Your task to perform on an android device: Go to network settings Image 0: 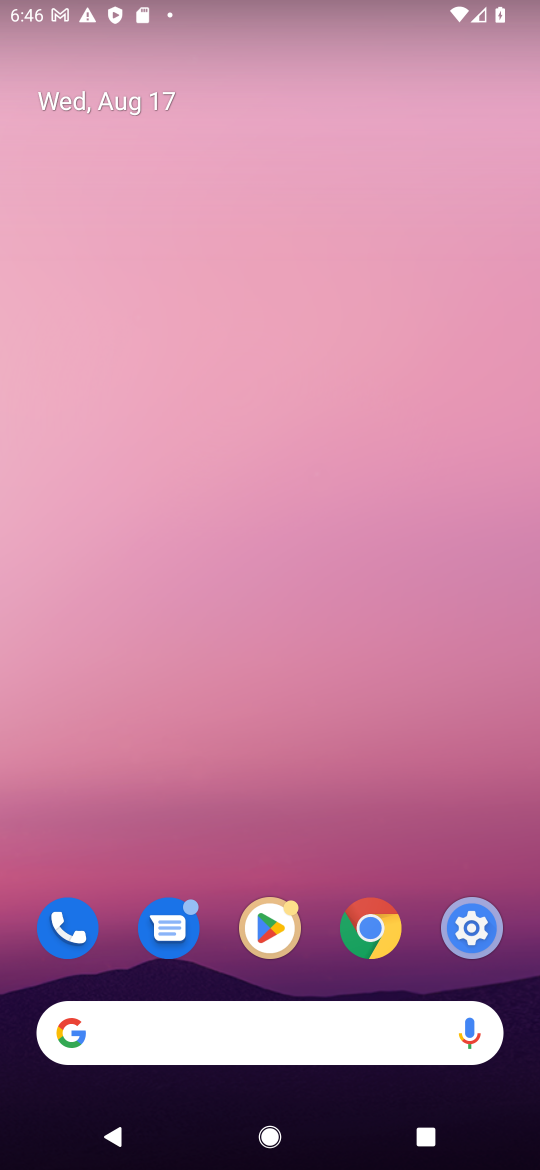
Step 0: click (460, 920)
Your task to perform on an android device: Go to network settings Image 1: 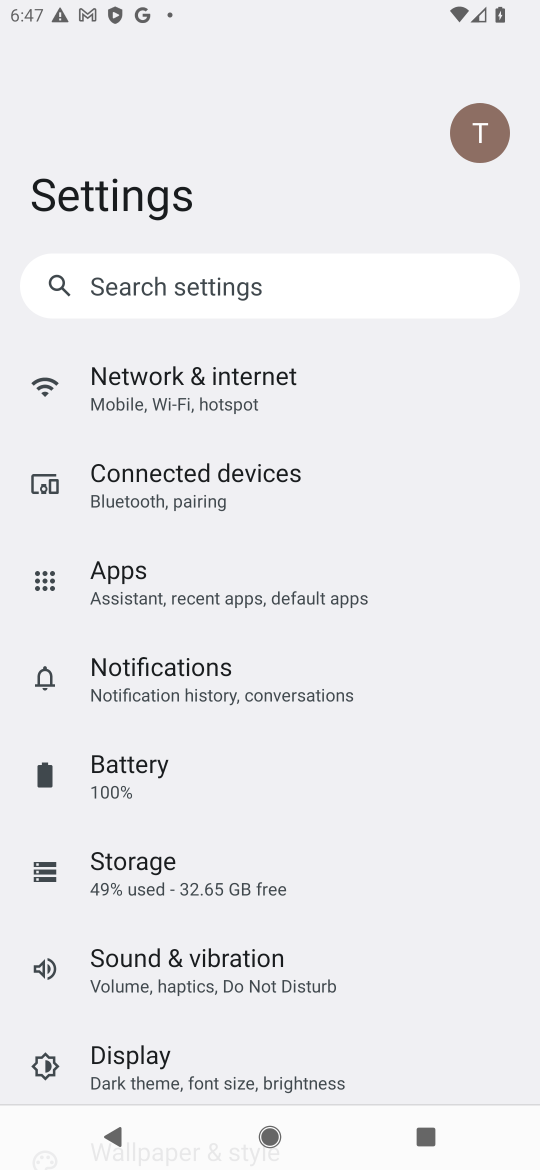
Step 1: click (192, 387)
Your task to perform on an android device: Go to network settings Image 2: 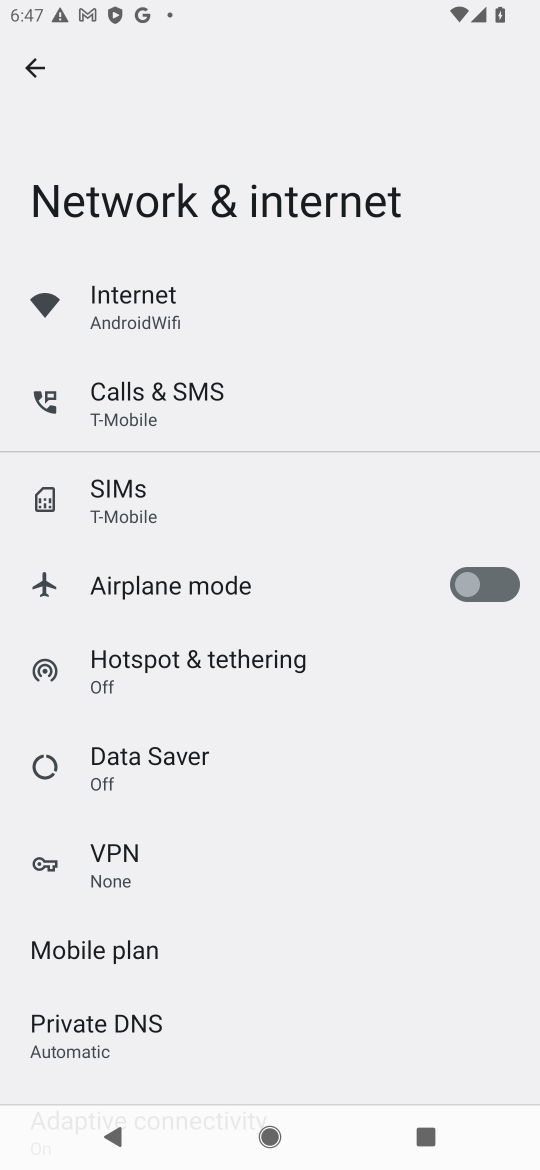
Step 2: task complete